Your task to perform on an android device: Is it going to rain tomorrow? Image 0: 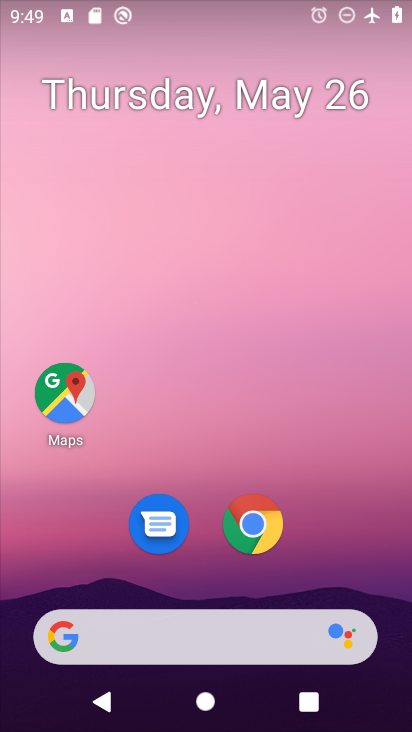
Step 0: click (246, 644)
Your task to perform on an android device: Is it going to rain tomorrow? Image 1: 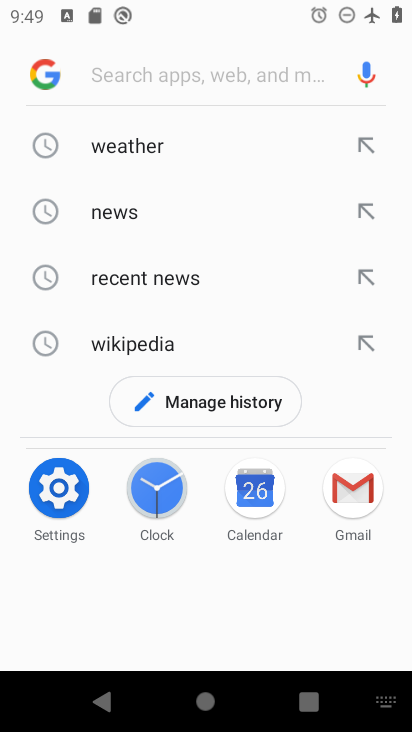
Step 1: click (207, 143)
Your task to perform on an android device: Is it going to rain tomorrow? Image 2: 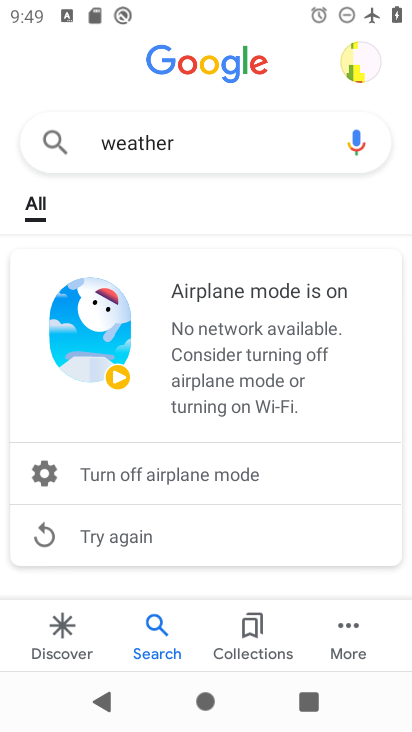
Step 2: task complete